Your task to perform on an android device: Go to notification settings Image 0: 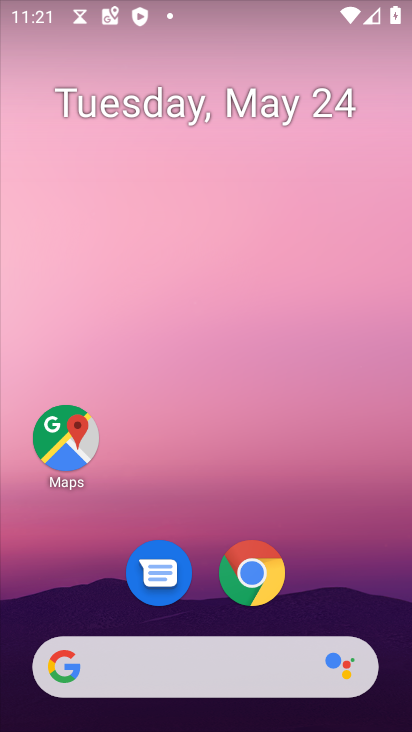
Step 0: drag from (88, 625) to (224, 67)
Your task to perform on an android device: Go to notification settings Image 1: 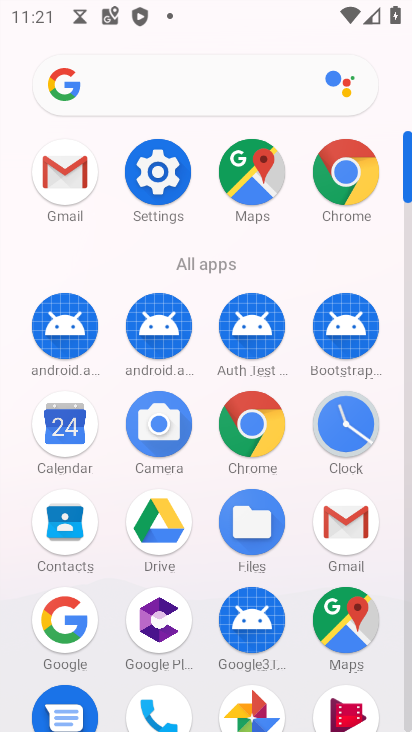
Step 1: drag from (231, 613) to (287, 214)
Your task to perform on an android device: Go to notification settings Image 2: 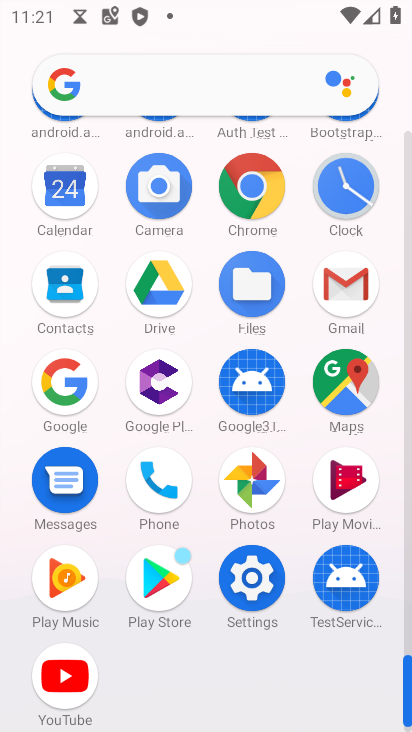
Step 2: click (258, 566)
Your task to perform on an android device: Go to notification settings Image 3: 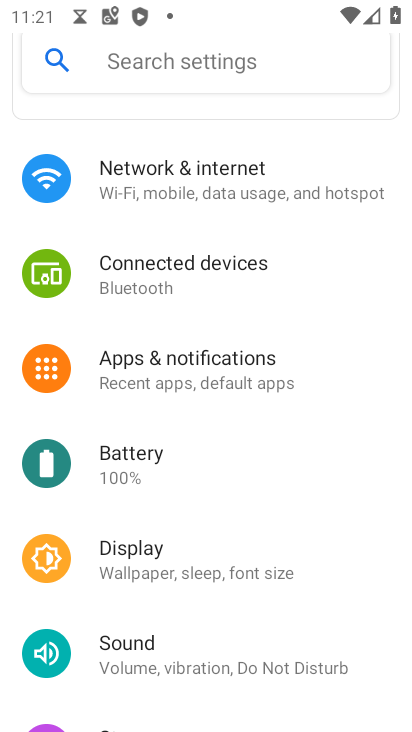
Step 3: click (263, 388)
Your task to perform on an android device: Go to notification settings Image 4: 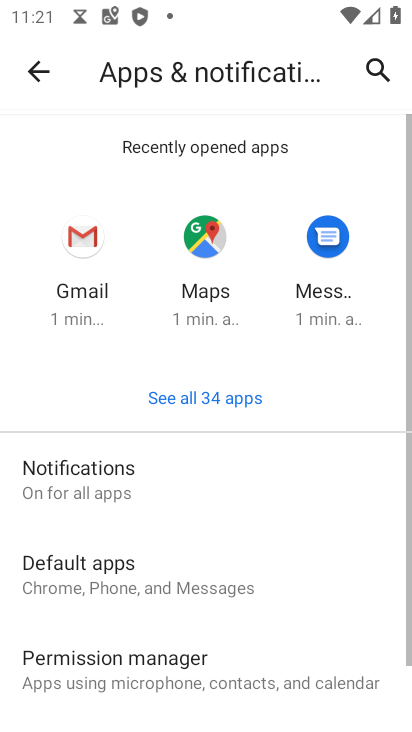
Step 4: click (192, 508)
Your task to perform on an android device: Go to notification settings Image 5: 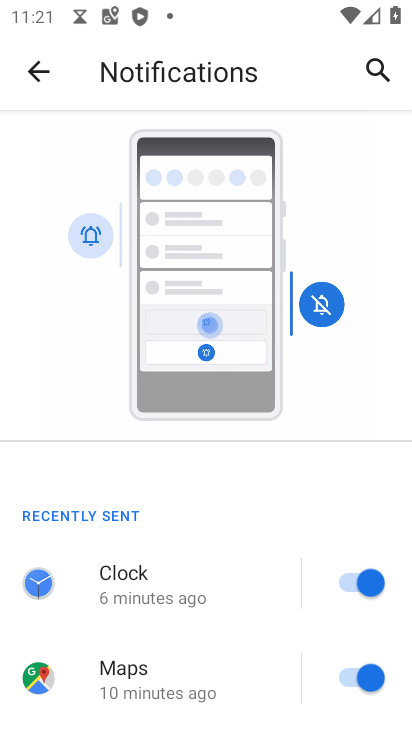
Step 5: task complete